Your task to perform on an android device: Open Maps and search for coffee Image 0: 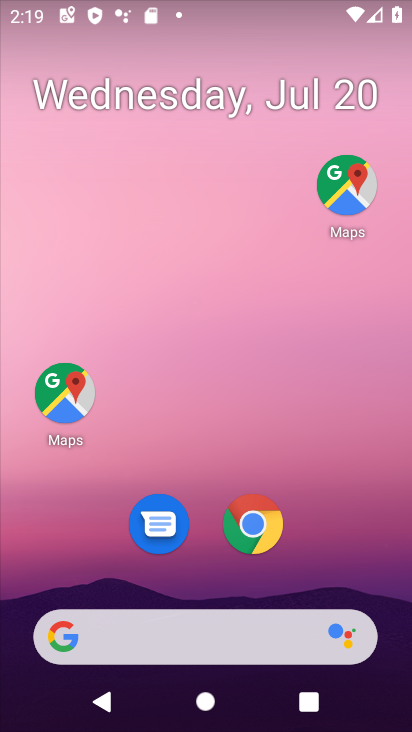
Step 0: click (59, 380)
Your task to perform on an android device: Open Maps and search for coffee Image 1: 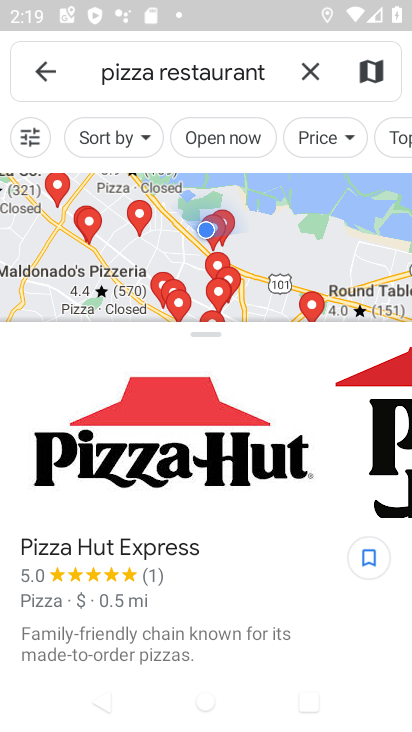
Step 1: click (311, 72)
Your task to perform on an android device: Open Maps and search for coffee Image 2: 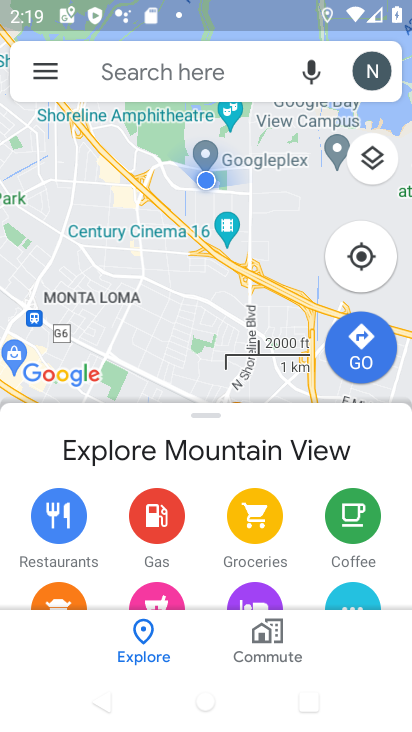
Step 2: click (252, 85)
Your task to perform on an android device: Open Maps and search for coffee Image 3: 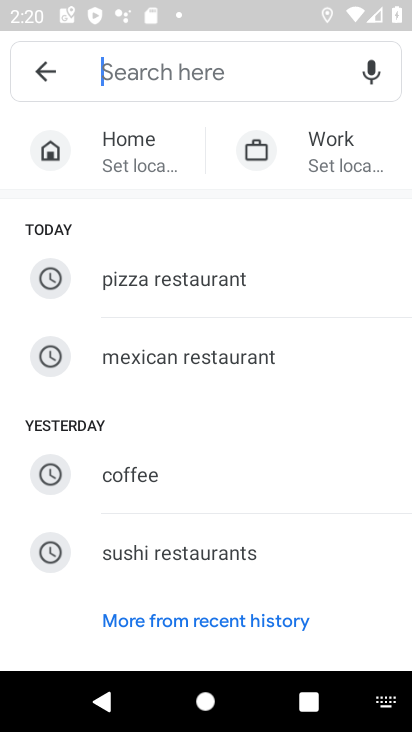
Step 3: click (142, 473)
Your task to perform on an android device: Open Maps and search for coffee Image 4: 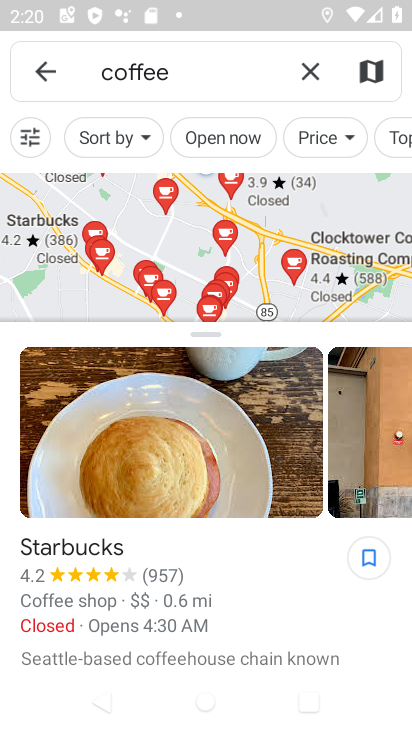
Step 4: task complete